Your task to perform on an android device: Open the phone app and click the voicemail tab. Image 0: 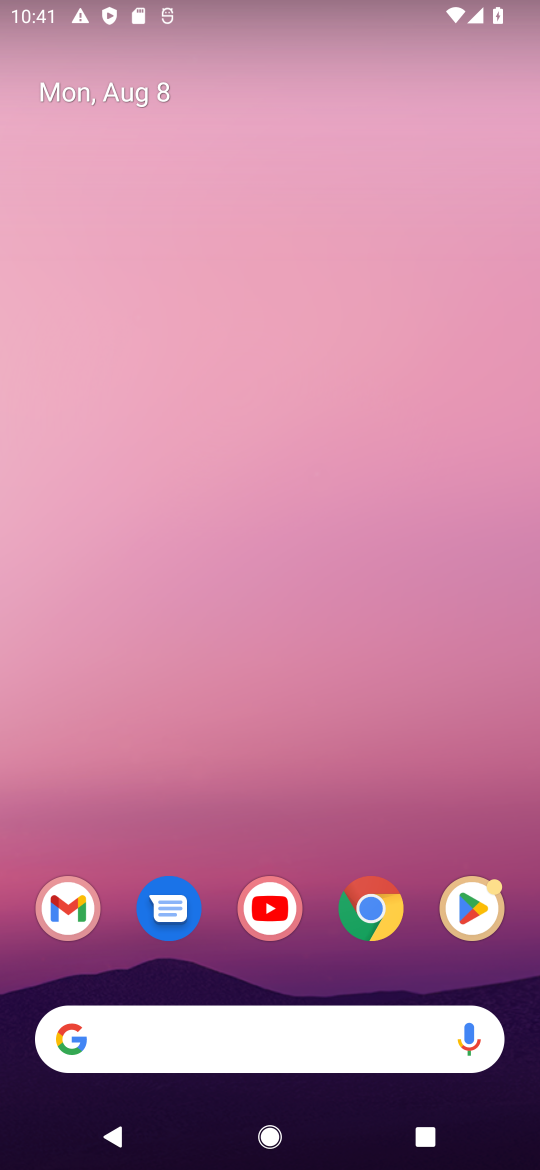
Step 0: drag from (315, 961) to (361, 208)
Your task to perform on an android device: Open the phone app and click the voicemail tab. Image 1: 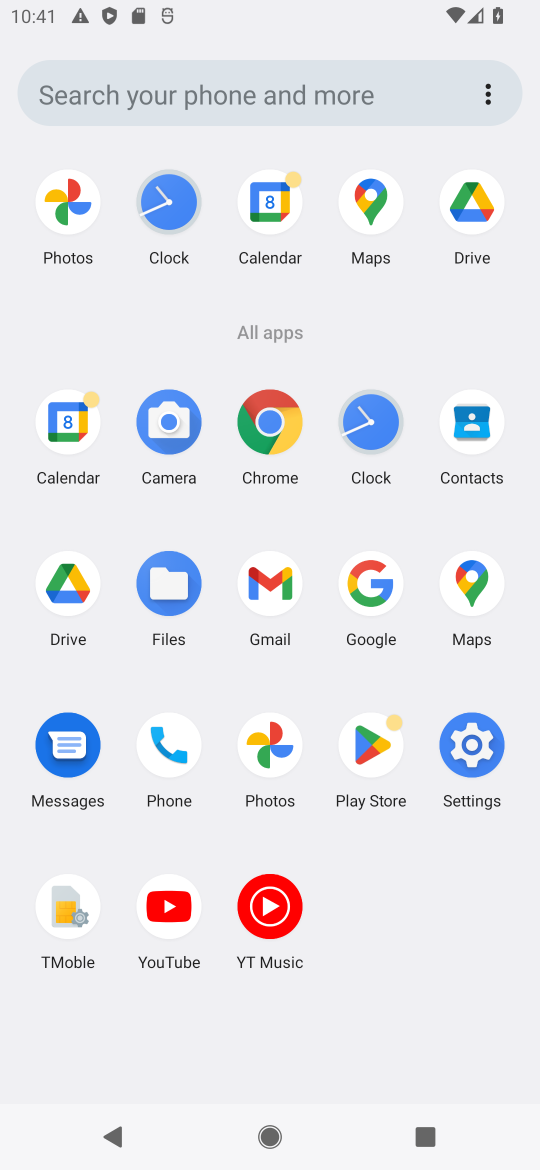
Step 1: click (175, 743)
Your task to perform on an android device: Open the phone app and click the voicemail tab. Image 2: 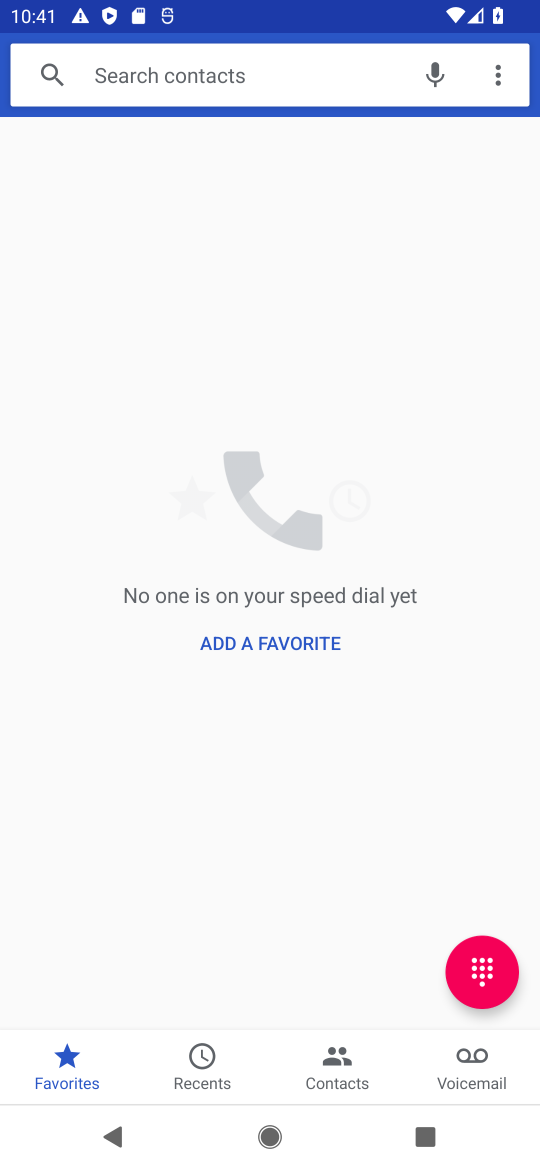
Step 2: click (471, 1057)
Your task to perform on an android device: Open the phone app and click the voicemail tab. Image 3: 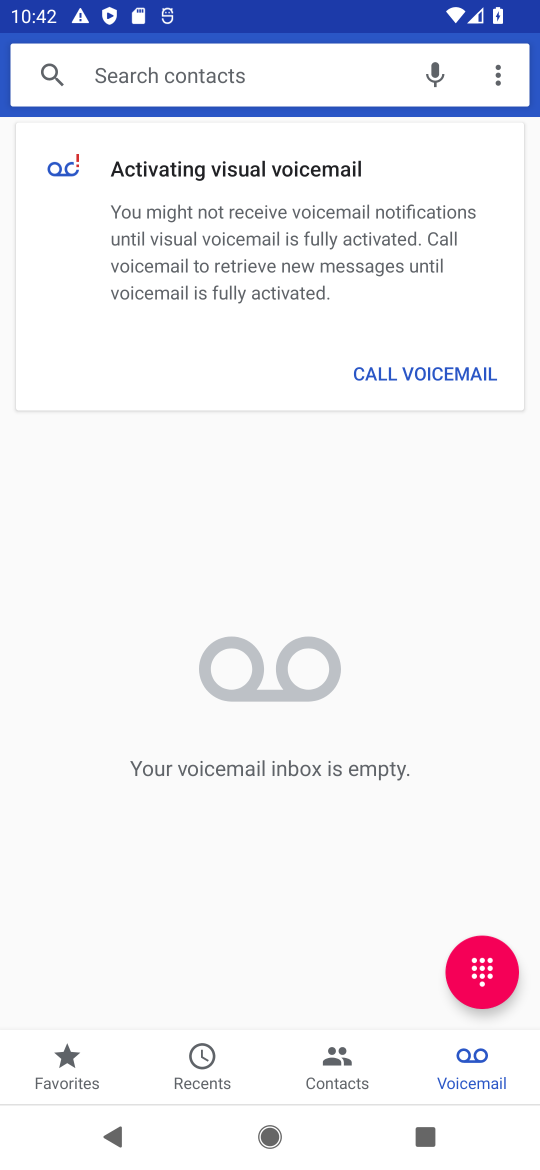
Step 3: task complete